Your task to perform on an android device: Open Amazon Image 0: 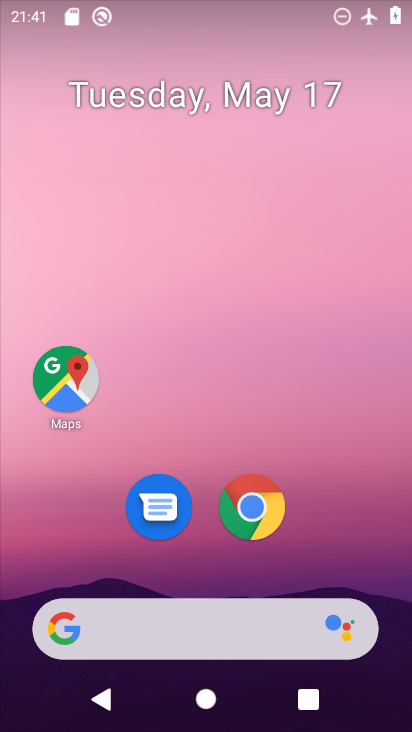
Step 0: click (247, 511)
Your task to perform on an android device: Open Amazon Image 1: 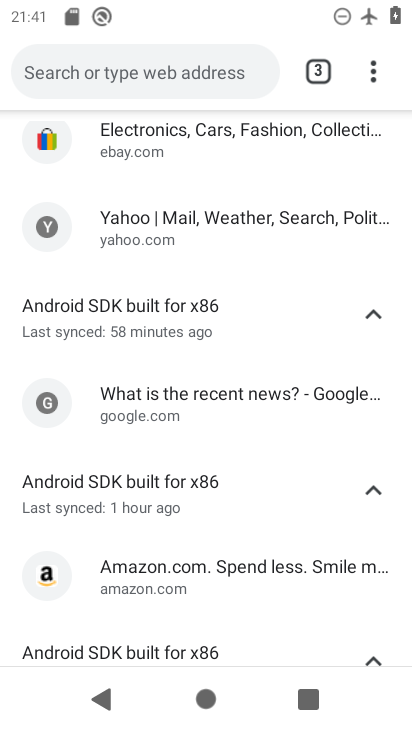
Step 1: click (124, 78)
Your task to perform on an android device: Open Amazon Image 2: 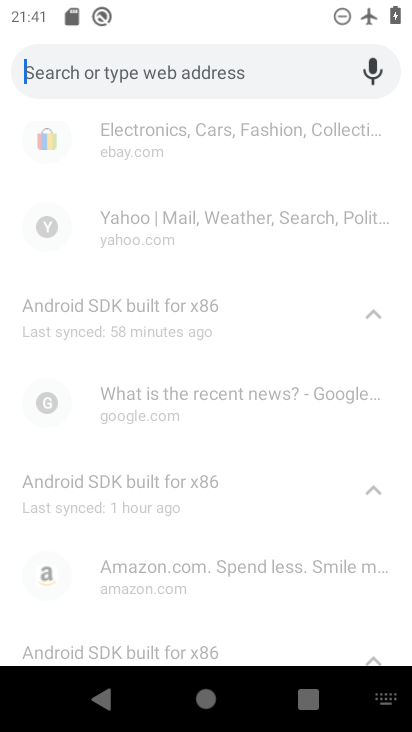
Step 2: type "amazon"
Your task to perform on an android device: Open Amazon Image 3: 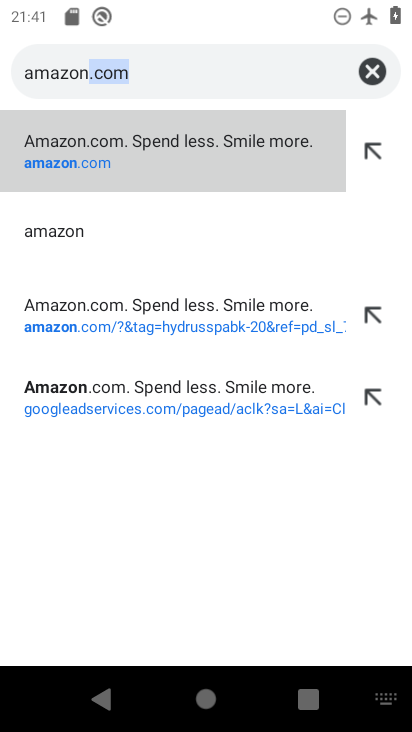
Step 3: click (46, 145)
Your task to perform on an android device: Open Amazon Image 4: 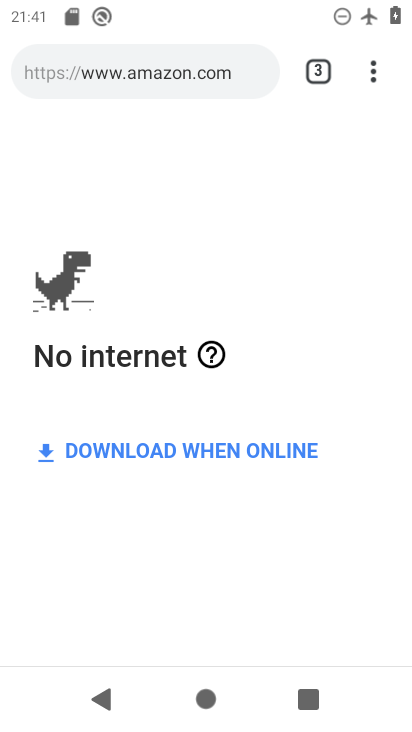
Step 4: task complete